Your task to perform on an android device: turn off data saver in the chrome app Image 0: 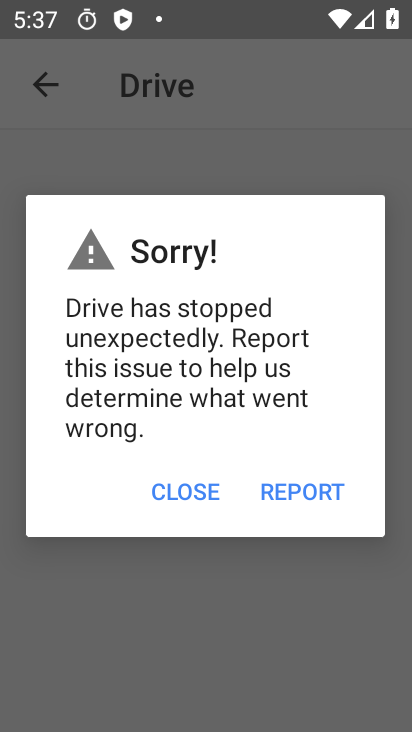
Step 0: press home button
Your task to perform on an android device: turn off data saver in the chrome app Image 1: 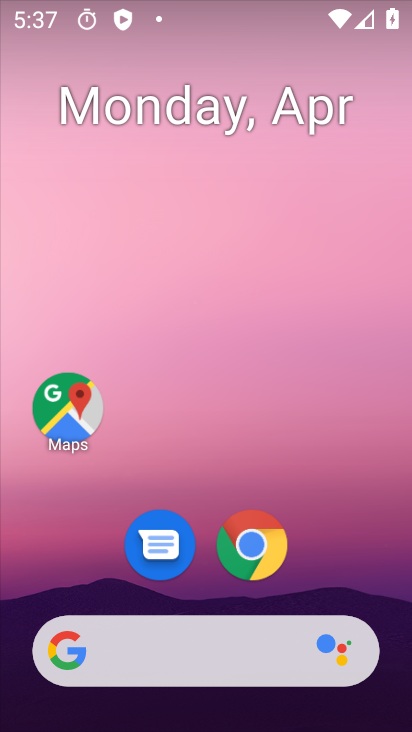
Step 1: drag from (294, 574) to (410, 175)
Your task to perform on an android device: turn off data saver in the chrome app Image 2: 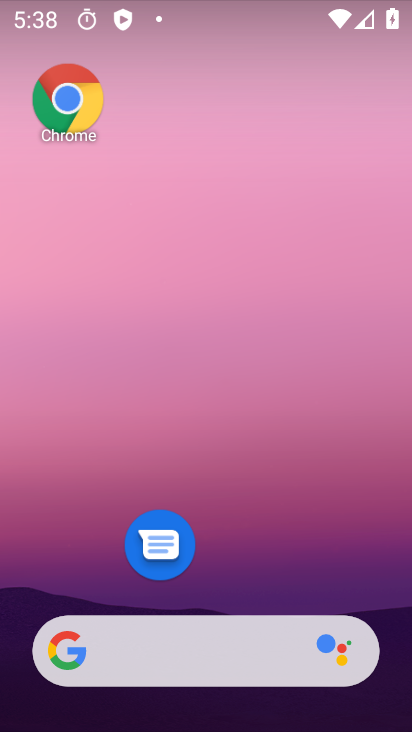
Step 2: drag from (272, 526) to (300, 156)
Your task to perform on an android device: turn off data saver in the chrome app Image 3: 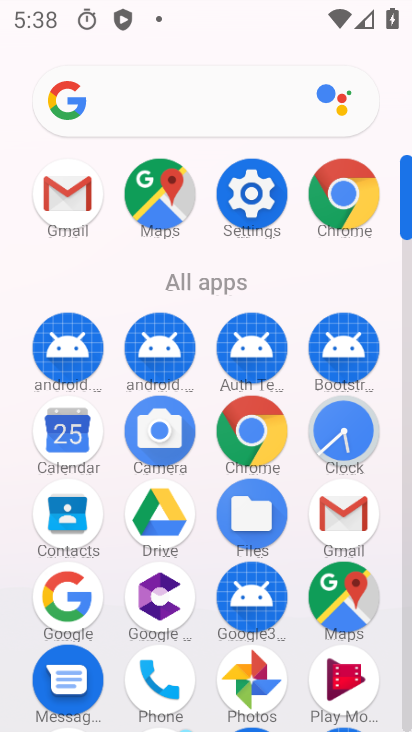
Step 3: click (335, 190)
Your task to perform on an android device: turn off data saver in the chrome app Image 4: 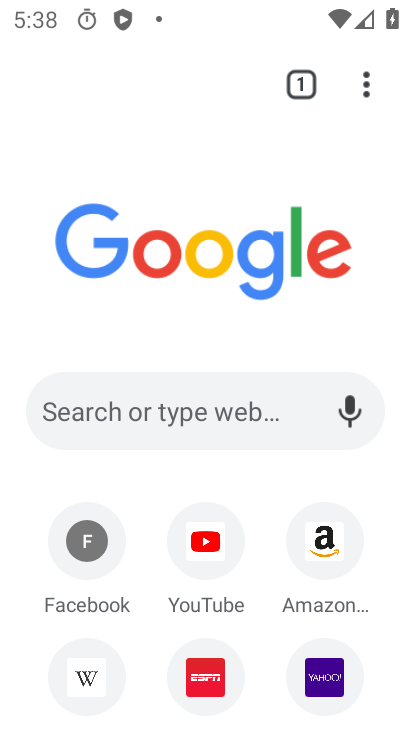
Step 4: drag from (363, 92) to (177, 595)
Your task to perform on an android device: turn off data saver in the chrome app Image 5: 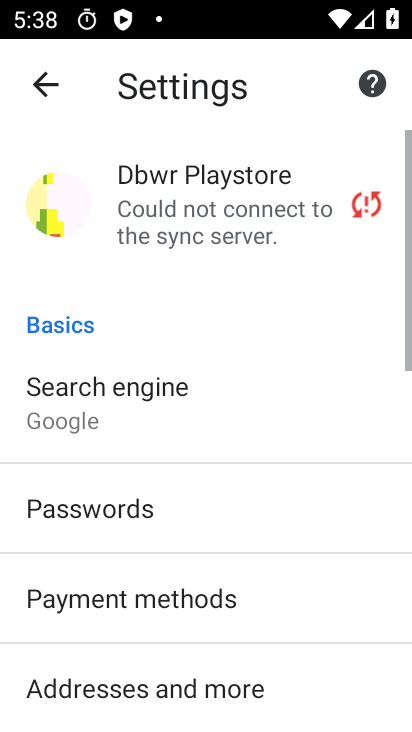
Step 5: drag from (351, 679) to (346, 266)
Your task to perform on an android device: turn off data saver in the chrome app Image 6: 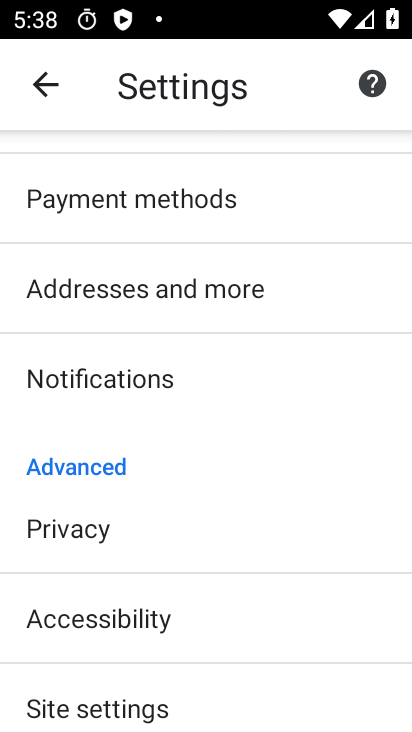
Step 6: click (115, 697)
Your task to perform on an android device: turn off data saver in the chrome app Image 7: 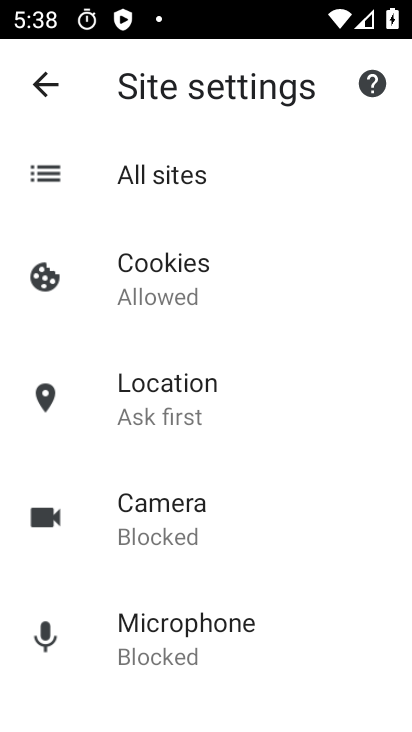
Step 7: click (43, 87)
Your task to perform on an android device: turn off data saver in the chrome app Image 8: 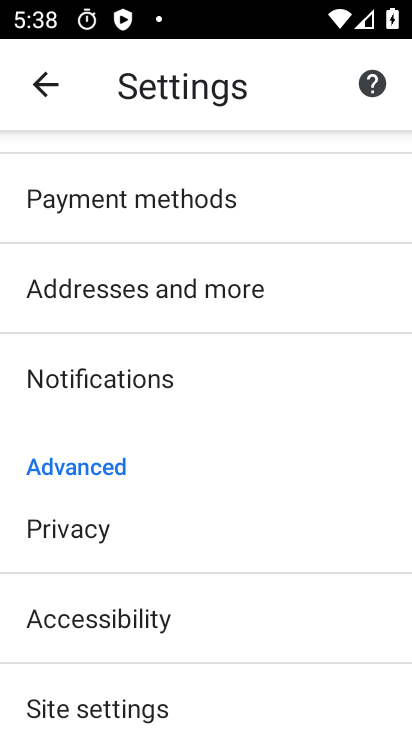
Step 8: drag from (297, 616) to (342, 302)
Your task to perform on an android device: turn off data saver in the chrome app Image 9: 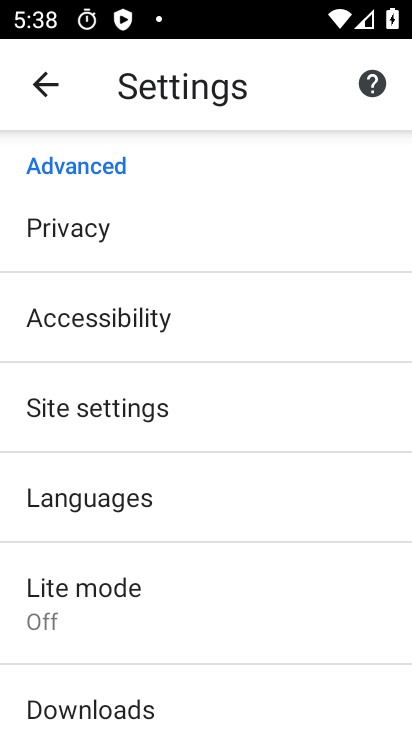
Step 9: click (75, 586)
Your task to perform on an android device: turn off data saver in the chrome app Image 10: 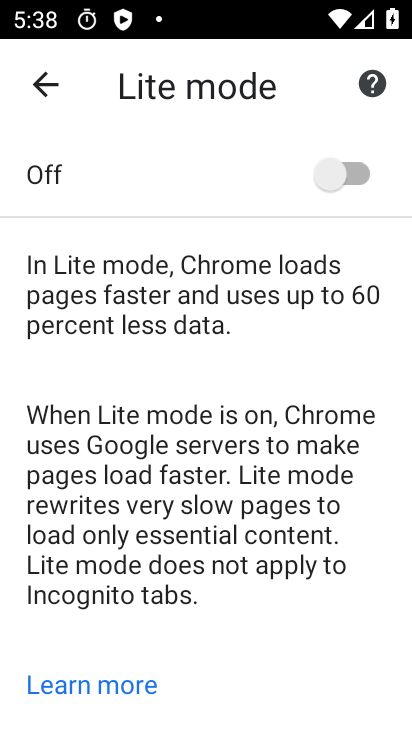
Step 10: task complete